Your task to perform on an android device: Toggle the flashlight Image 0: 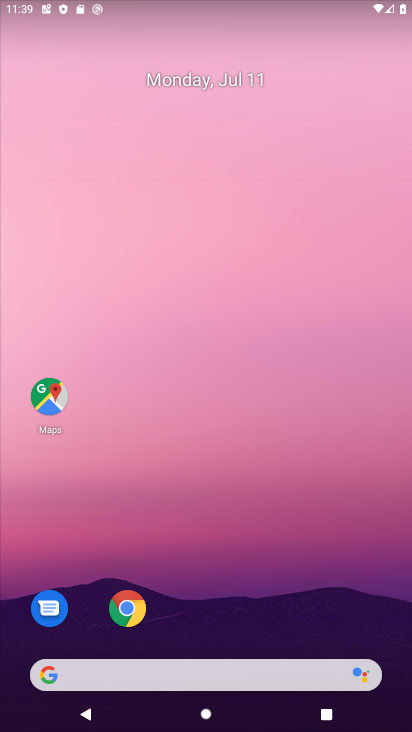
Step 0: drag from (255, 609) to (197, 52)
Your task to perform on an android device: Toggle the flashlight Image 1: 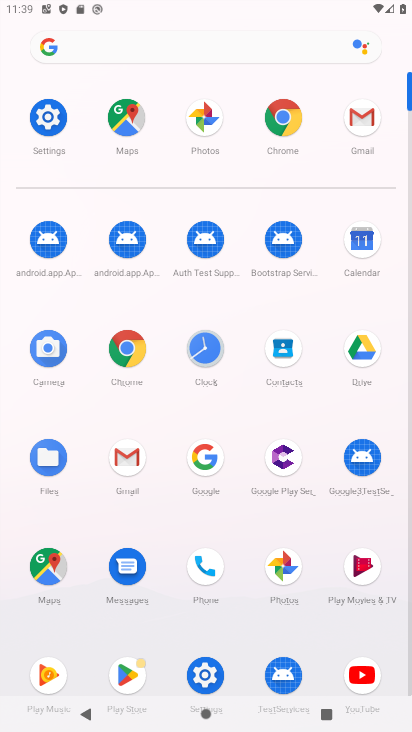
Step 1: click (41, 119)
Your task to perform on an android device: Toggle the flashlight Image 2: 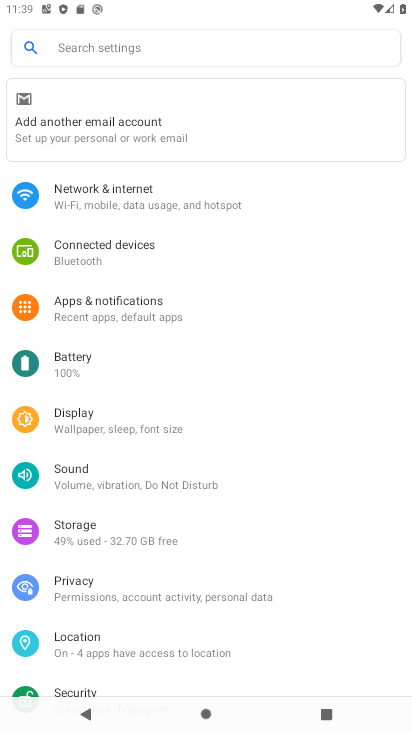
Step 2: task complete